Your task to perform on an android device: What's on my calendar tomorrow? Image 0: 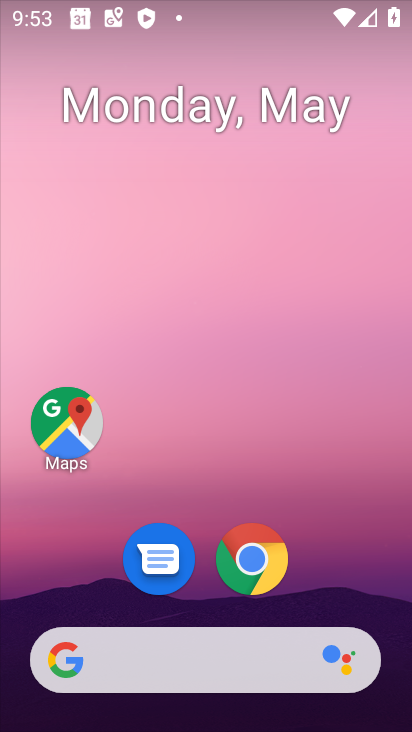
Step 0: drag from (334, 504) to (275, 20)
Your task to perform on an android device: What's on my calendar tomorrow? Image 1: 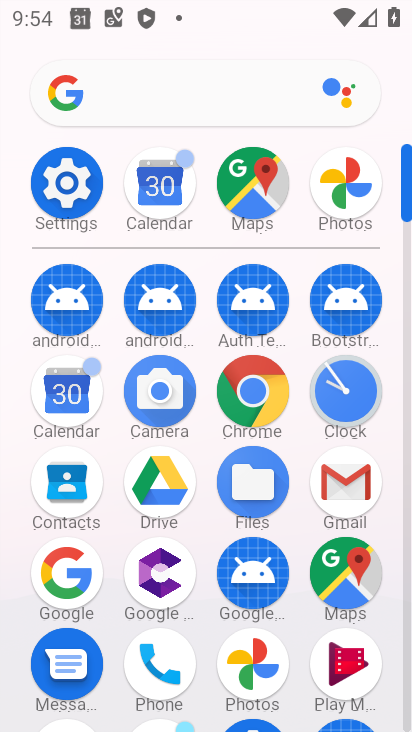
Step 1: click (64, 408)
Your task to perform on an android device: What's on my calendar tomorrow? Image 2: 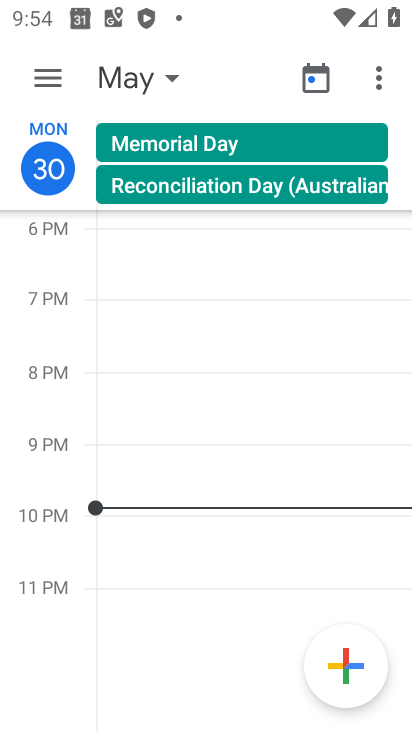
Step 2: click (164, 73)
Your task to perform on an android device: What's on my calendar tomorrow? Image 3: 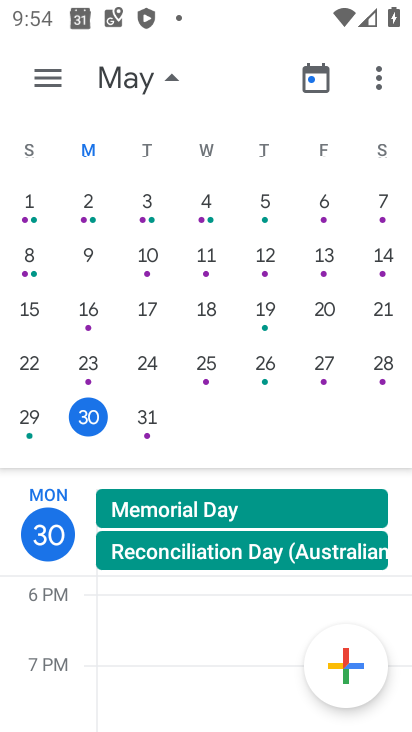
Step 3: click (146, 414)
Your task to perform on an android device: What's on my calendar tomorrow? Image 4: 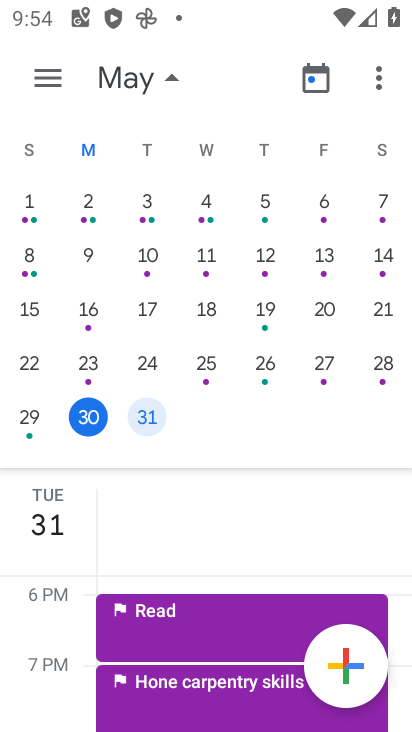
Step 4: task complete